Your task to perform on an android device: Go to Wikipedia Image 0: 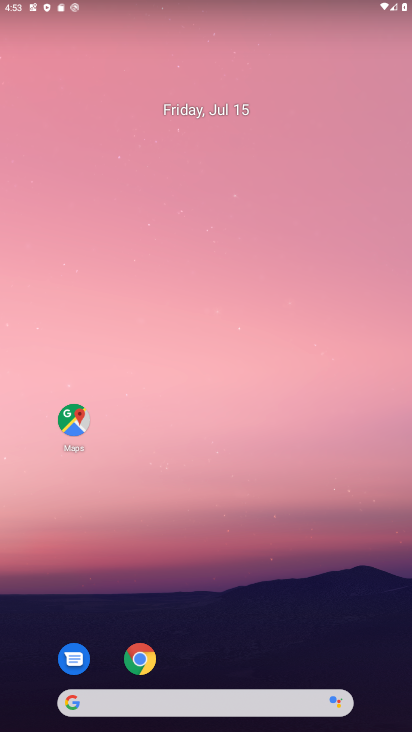
Step 0: drag from (249, 666) to (194, 204)
Your task to perform on an android device: Go to Wikipedia Image 1: 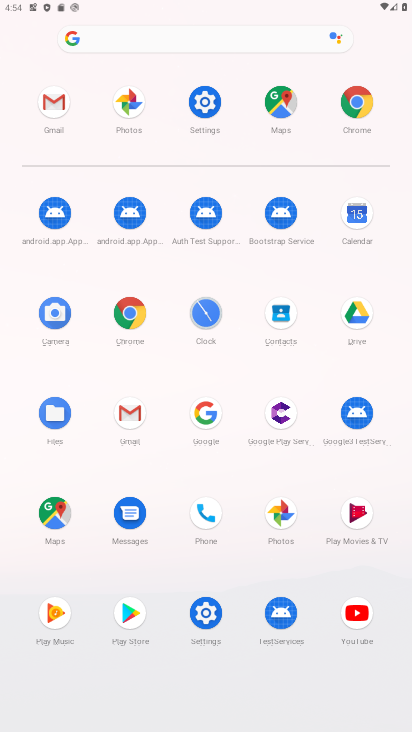
Step 1: click (365, 111)
Your task to perform on an android device: Go to Wikipedia Image 2: 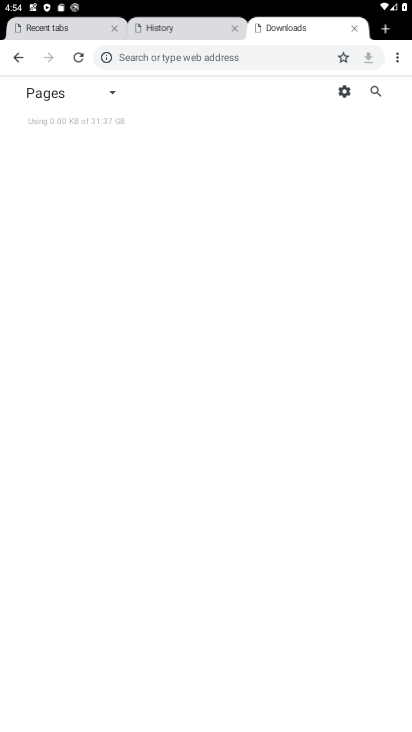
Step 2: click (378, 29)
Your task to perform on an android device: Go to Wikipedia Image 3: 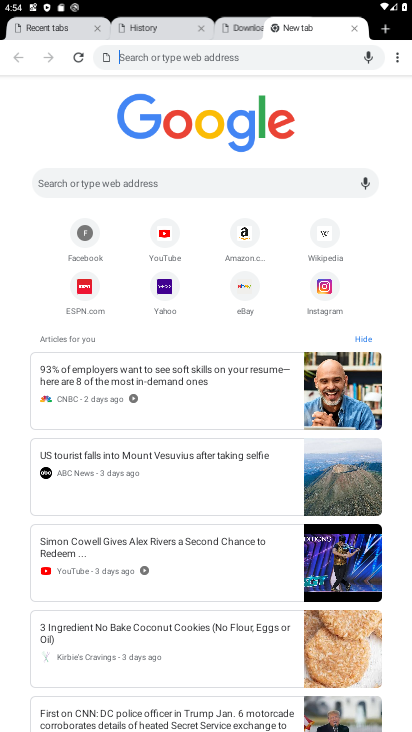
Step 3: click (312, 238)
Your task to perform on an android device: Go to Wikipedia Image 4: 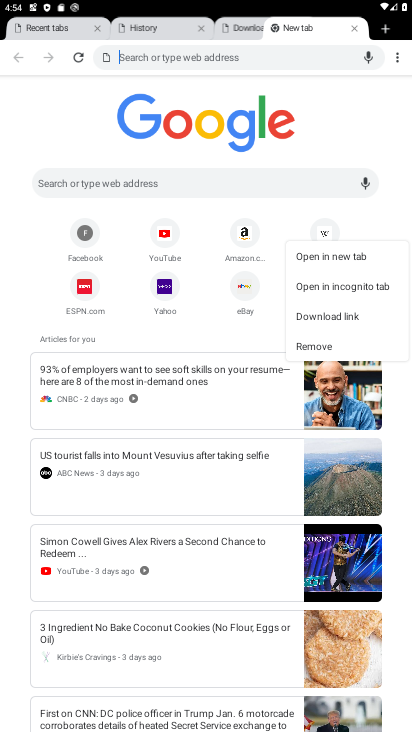
Step 4: task complete